Your task to perform on an android device: create a new album in the google photos Image 0: 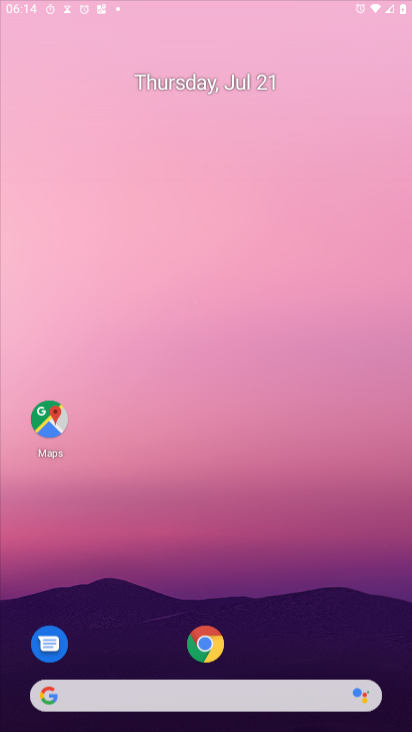
Step 0: press home button
Your task to perform on an android device: create a new album in the google photos Image 1: 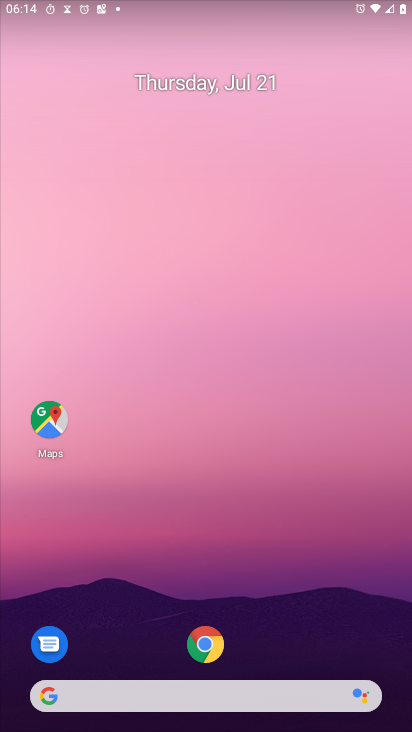
Step 1: drag from (290, 592) to (255, 110)
Your task to perform on an android device: create a new album in the google photos Image 2: 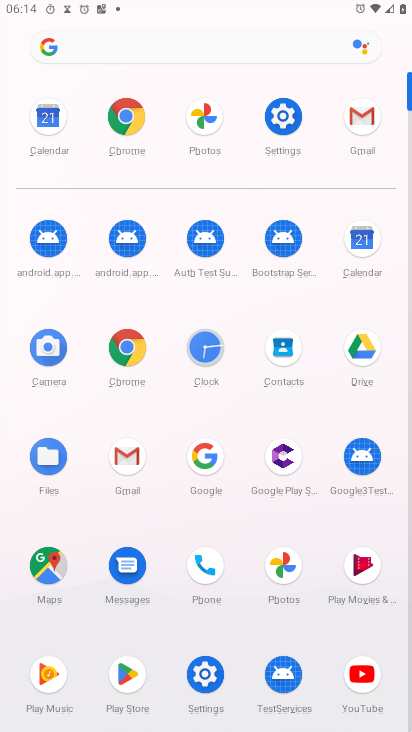
Step 2: click (280, 551)
Your task to perform on an android device: create a new album in the google photos Image 3: 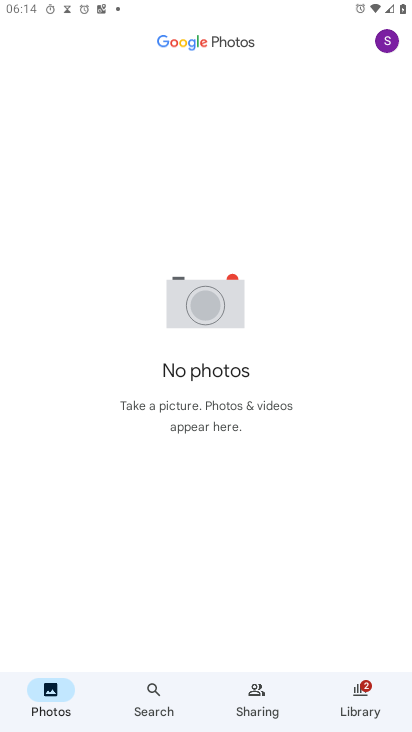
Step 3: task complete